Your task to perform on an android device: Check the news Image 0: 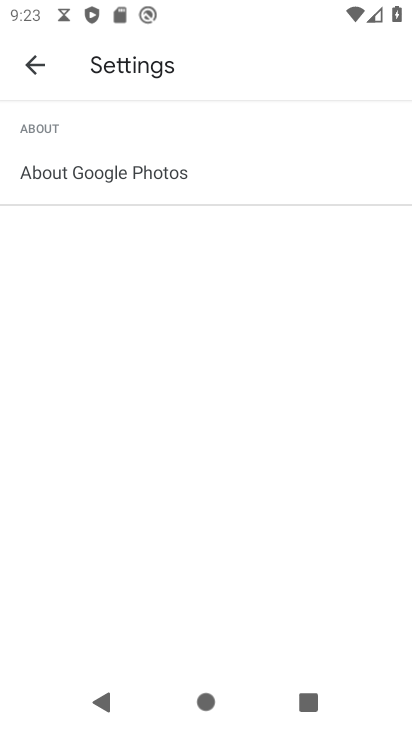
Step 0: press home button
Your task to perform on an android device: Check the news Image 1: 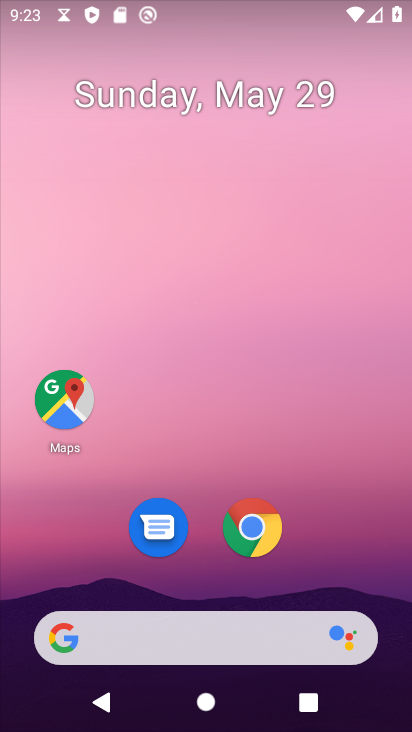
Step 1: click (76, 640)
Your task to perform on an android device: Check the news Image 2: 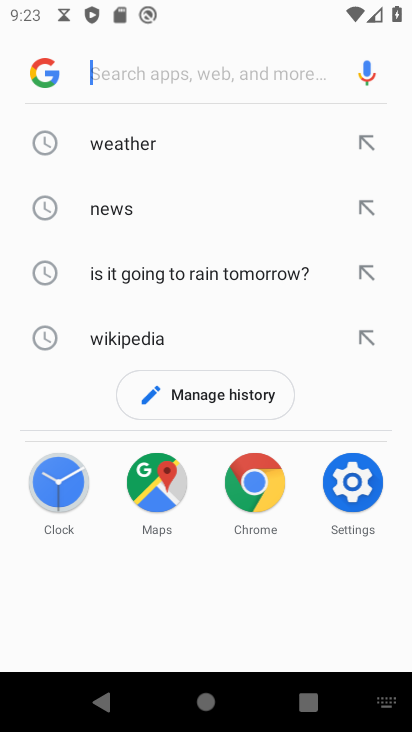
Step 2: click (126, 205)
Your task to perform on an android device: Check the news Image 3: 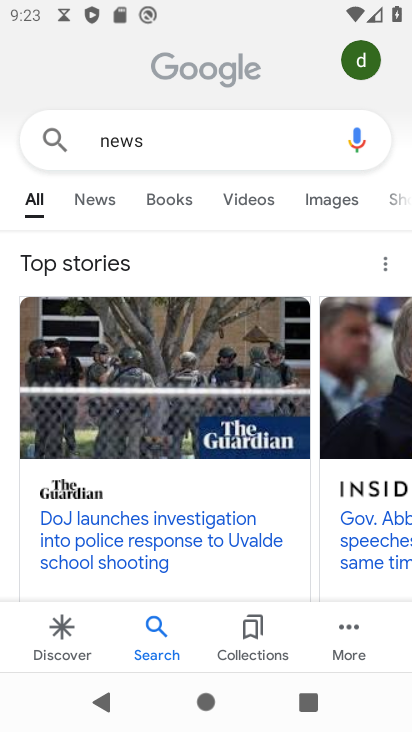
Step 3: click (106, 198)
Your task to perform on an android device: Check the news Image 4: 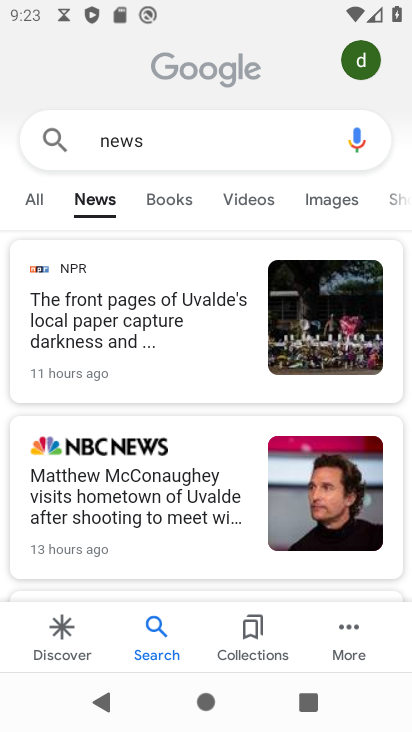
Step 4: task complete